Your task to perform on an android device: turn pop-ups off in chrome Image 0: 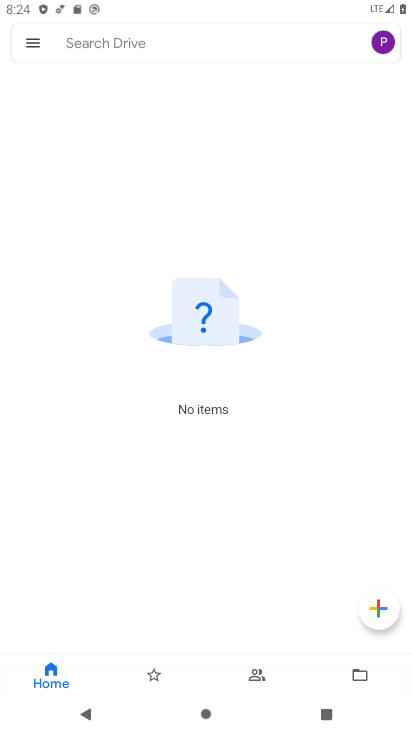
Step 0: press home button
Your task to perform on an android device: turn pop-ups off in chrome Image 1: 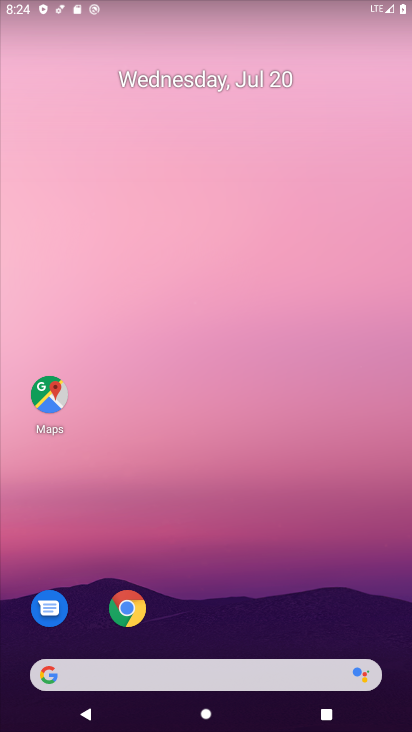
Step 1: drag from (257, 611) to (3, 9)
Your task to perform on an android device: turn pop-ups off in chrome Image 2: 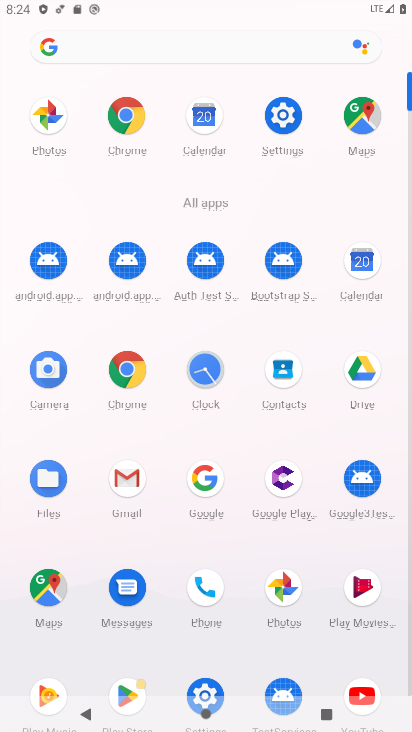
Step 2: click (121, 171)
Your task to perform on an android device: turn pop-ups off in chrome Image 3: 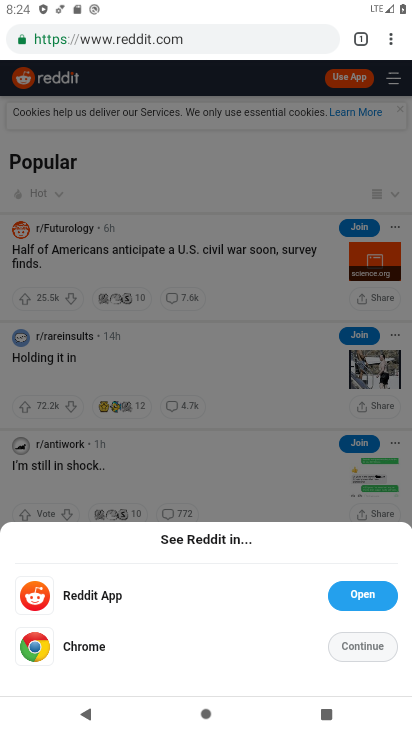
Step 3: drag from (396, 43) to (251, 469)
Your task to perform on an android device: turn pop-ups off in chrome Image 4: 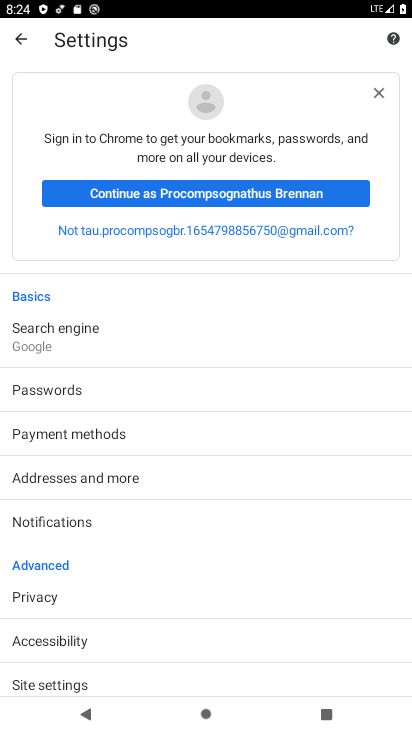
Step 4: drag from (94, 594) to (0, 179)
Your task to perform on an android device: turn pop-ups off in chrome Image 5: 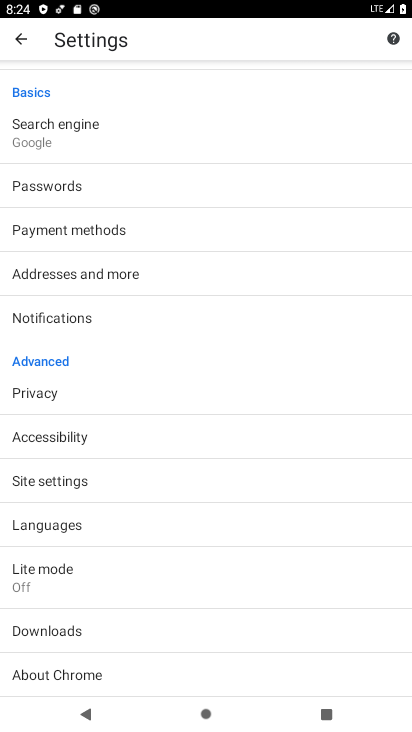
Step 5: click (36, 480)
Your task to perform on an android device: turn pop-ups off in chrome Image 6: 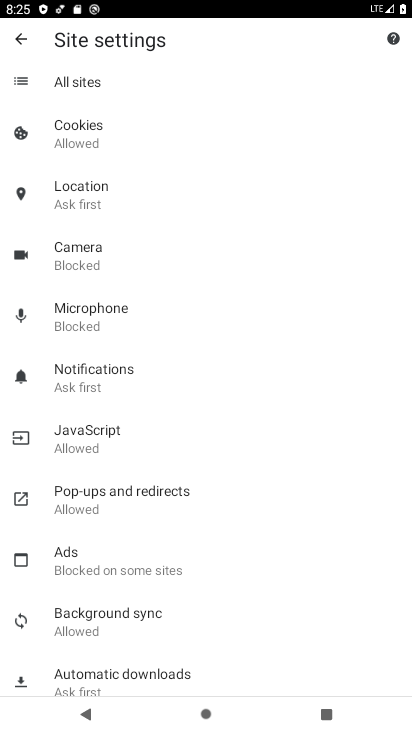
Step 6: click (89, 507)
Your task to perform on an android device: turn pop-ups off in chrome Image 7: 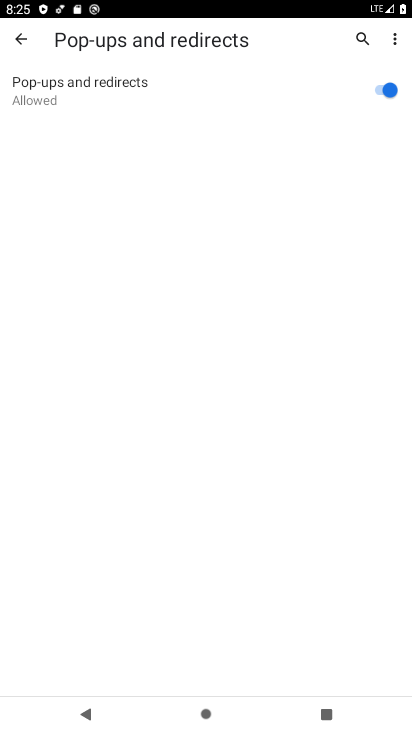
Step 7: click (394, 85)
Your task to perform on an android device: turn pop-ups off in chrome Image 8: 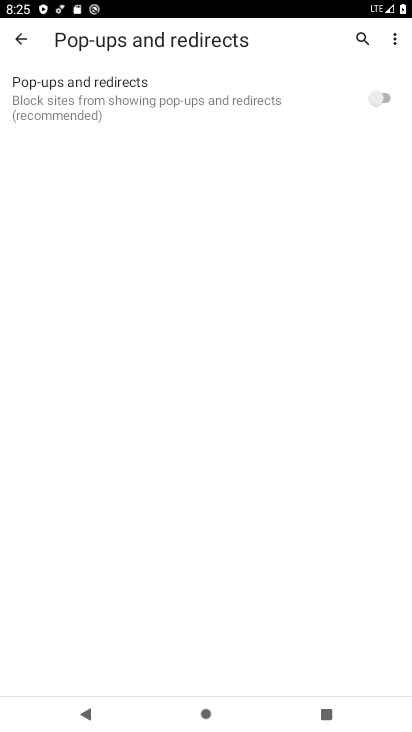
Step 8: task complete